Your task to perform on an android device: open app "Etsy: Buy & Sell Unique Items" Image 0: 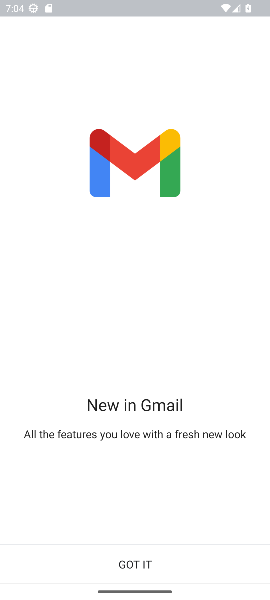
Step 0: click (139, 552)
Your task to perform on an android device: open app "Etsy: Buy & Sell Unique Items" Image 1: 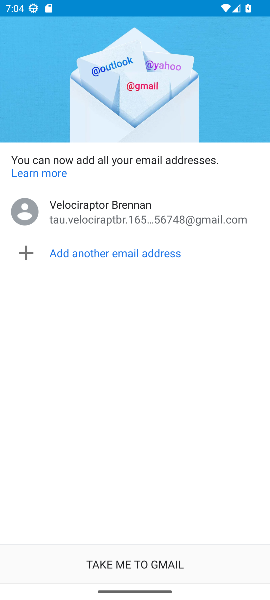
Step 1: press home button
Your task to perform on an android device: open app "Etsy: Buy & Sell Unique Items" Image 2: 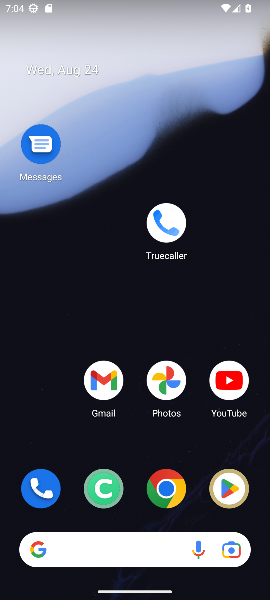
Step 2: drag from (138, 509) to (116, 35)
Your task to perform on an android device: open app "Etsy: Buy & Sell Unique Items" Image 3: 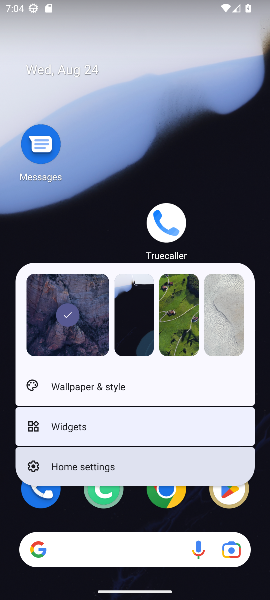
Step 3: click (121, 37)
Your task to perform on an android device: open app "Etsy: Buy & Sell Unique Items" Image 4: 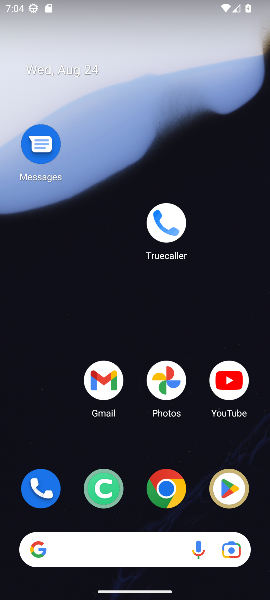
Step 4: click (225, 492)
Your task to perform on an android device: open app "Etsy: Buy & Sell Unique Items" Image 5: 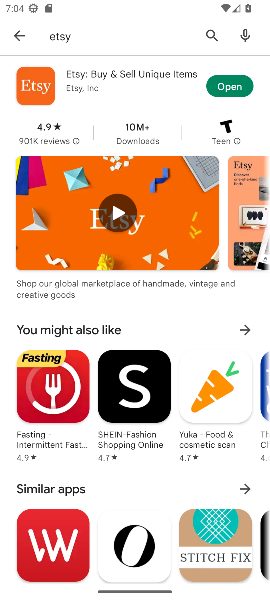
Step 5: click (211, 43)
Your task to perform on an android device: open app "Etsy: Buy & Sell Unique Items" Image 6: 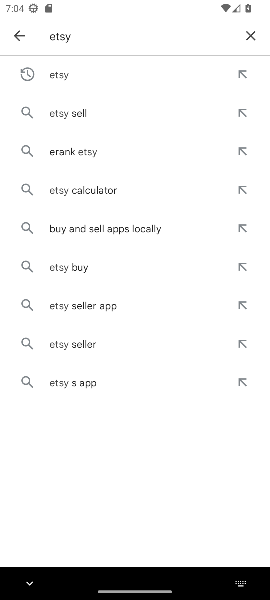
Step 6: click (242, 35)
Your task to perform on an android device: open app "Etsy: Buy & Sell Unique Items" Image 7: 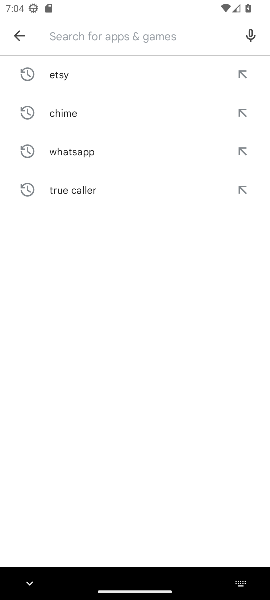
Step 7: type "esty"
Your task to perform on an android device: open app "Etsy: Buy & Sell Unique Items" Image 8: 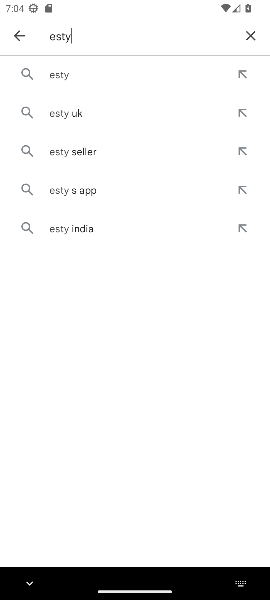
Step 8: click (71, 61)
Your task to perform on an android device: open app "Etsy: Buy & Sell Unique Items" Image 9: 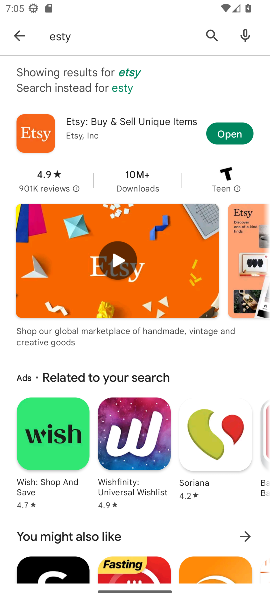
Step 9: click (227, 131)
Your task to perform on an android device: open app "Etsy: Buy & Sell Unique Items" Image 10: 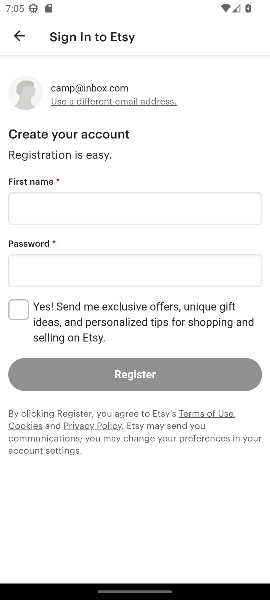
Step 10: task complete